Your task to perform on an android device: toggle sleep mode Image 0: 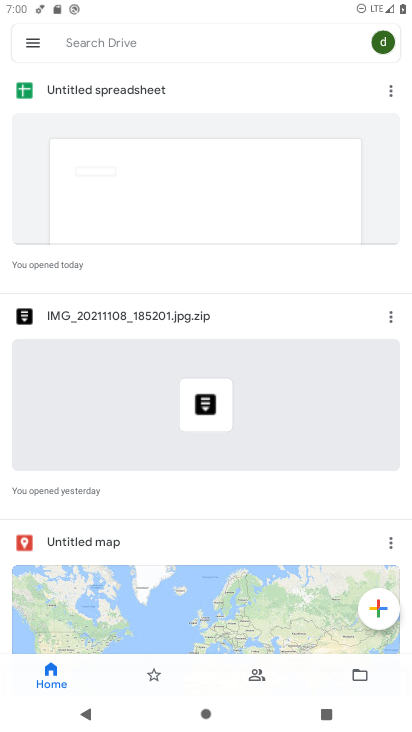
Step 0: press home button
Your task to perform on an android device: toggle sleep mode Image 1: 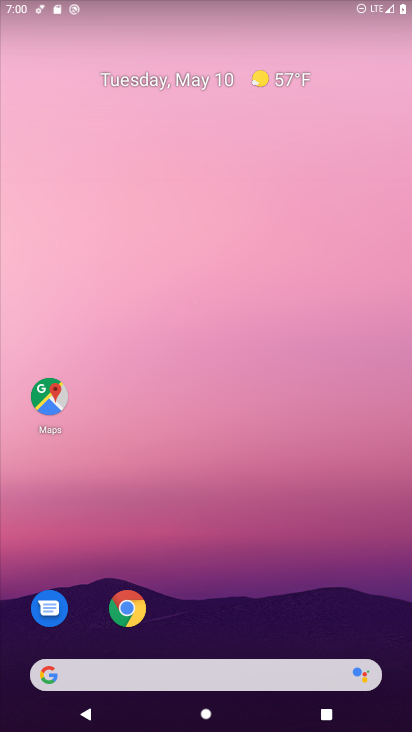
Step 1: drag from (300, 619) to (223, 23)
Your task to perform on an android device: toggle sleep mode Image 2: 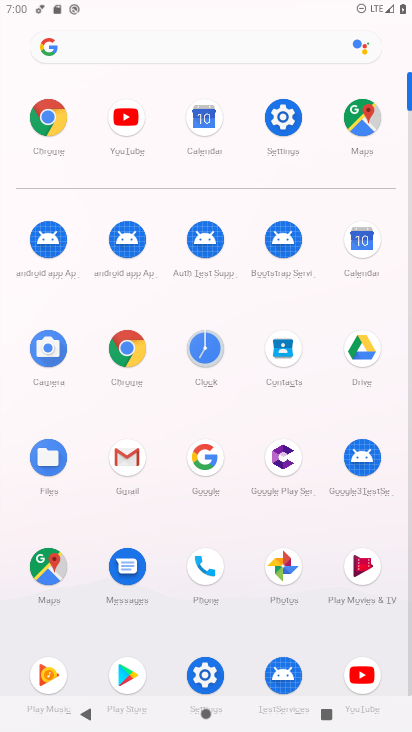
Step 2: click (275, 127)
Your task to perform on an android device: toggle sleep mode Image 3: 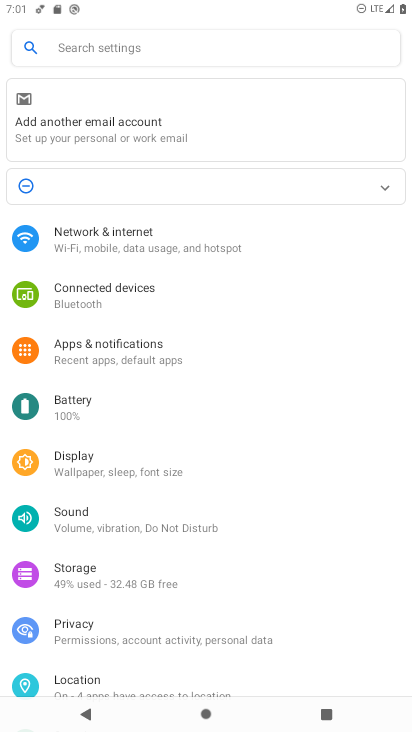
Step 3: task complete